Your task to perform on an android device: Do I have any events tomorrow? Image 0: 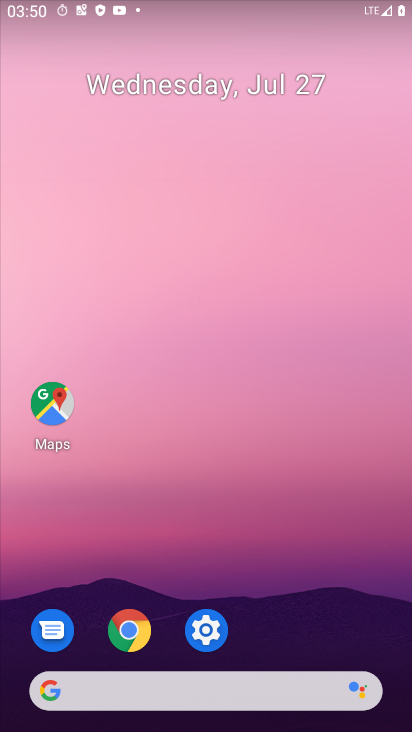
Step 0: press back button
Your task to perform on an android device: Do I have any events tomorrow? Image 1: 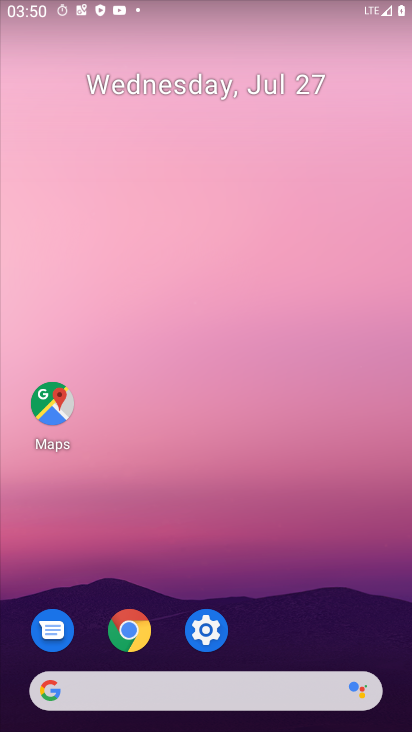
Step 1: click (179, 41)
Your task to perform on an android device: Do I have any events tomorrow? Image 2: 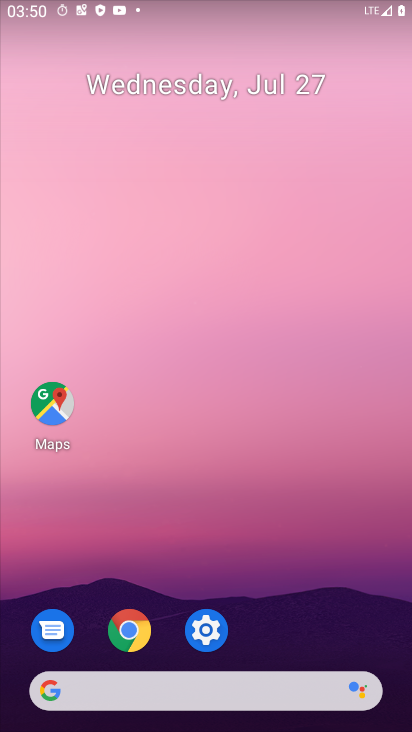
Step 2: click (218, 112)
Your task to perform on an android device: Do I have any events tomorrow? Image 3: 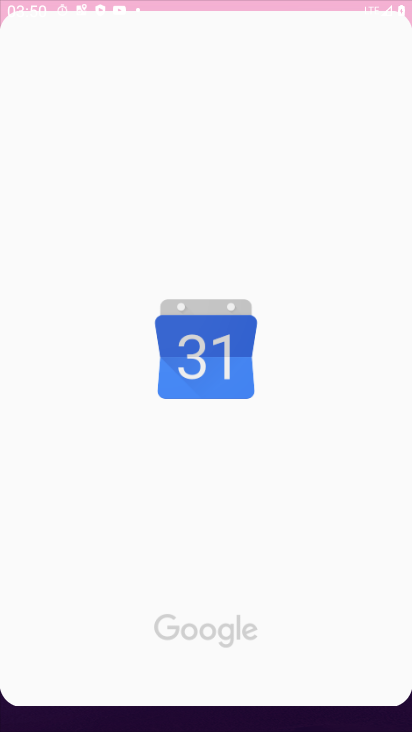
Step 3: drag from (264, 279) to (226, 40)
Your task to perform on an android device: Do I have any events tomorrow? Image 4: 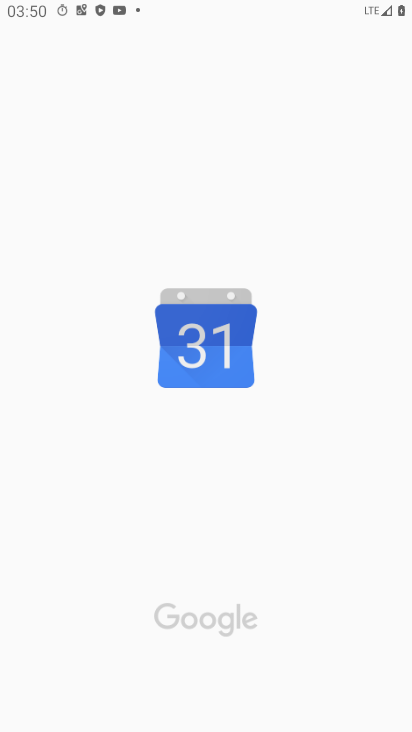
Step 4: drag from (277, 510) to (231, 141)
Your task to perform on an android device: Do I have any events tomorrow? Image 5: 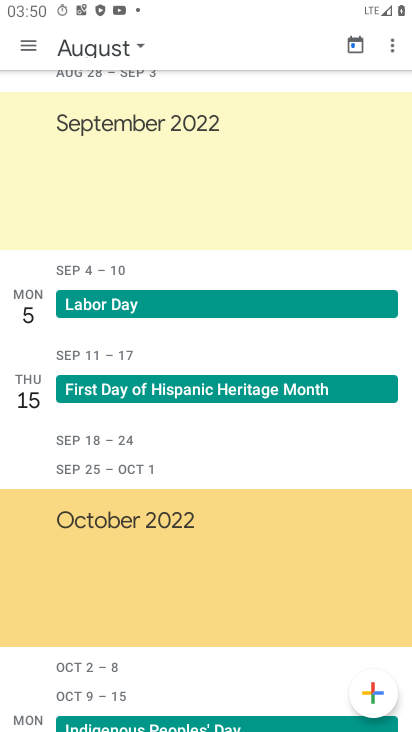
Step 5: click (139, 39)
Your task to perform on an android device: Do I have any events tomorrow? Image 6: 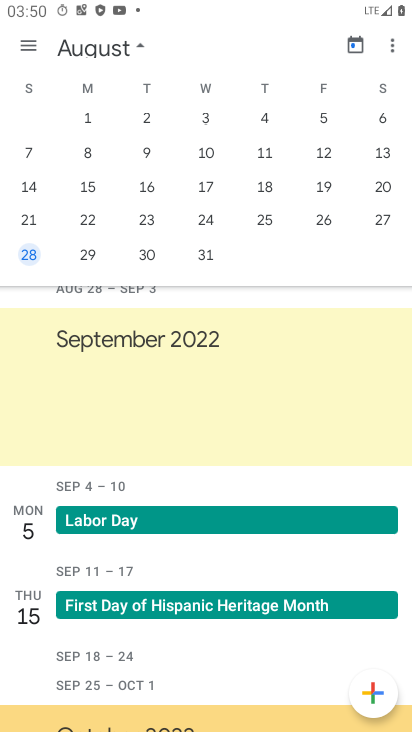
Step 6: drag from (128, 196) to (331, 204)
Your task to perform on an android device: Do I have any events tomorrow? Image 7: 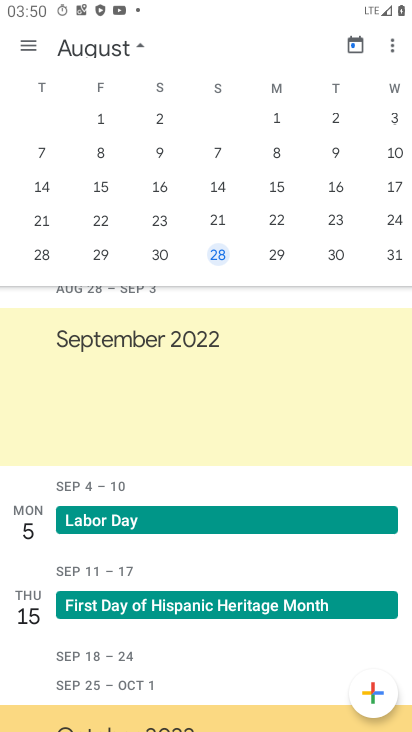
Step 7: drag from (223, 206) to (410, 216)
Your task to perform on an android device: Do I have any events tomorrow? Image 8: 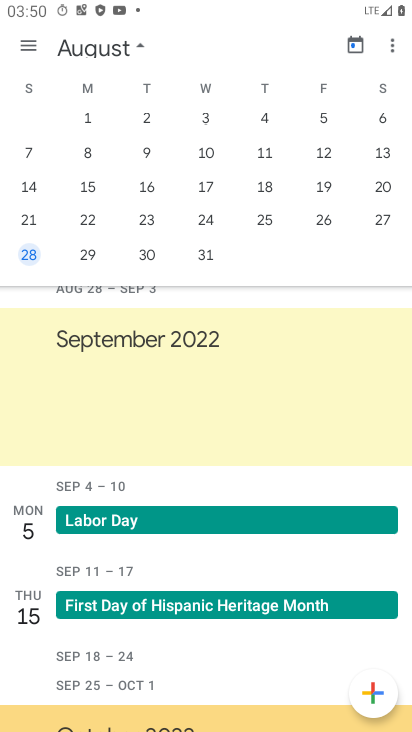
Step 8: drag from (74, 201) to (263, 198)
Your task to perform on an android device: Do I have any events tomorrow? Image 9: 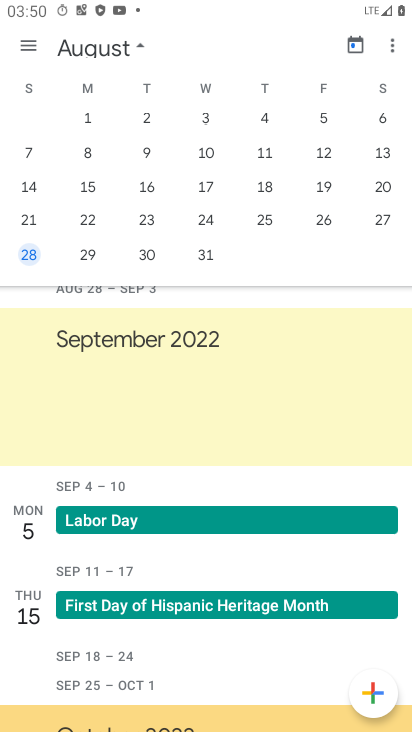
Step 9: drag from (41, 162) to (406, 162)
Your task to perform on an android device: Do I have any events tomorrow? Image 10: 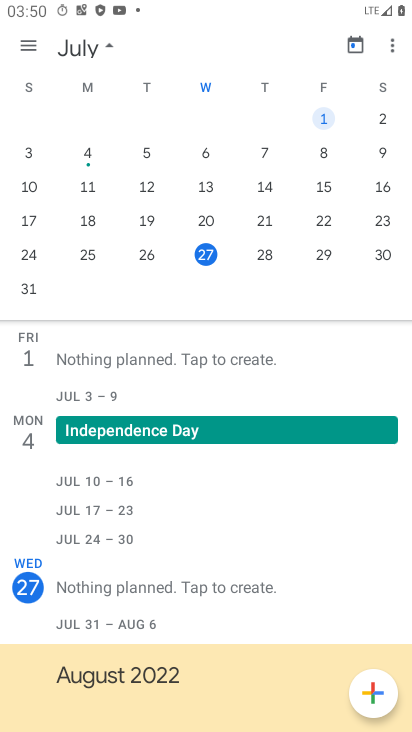
Step 10: click (275, 248)
Your task to perform on an android device: Do I have any events tomorrow? Image 11: 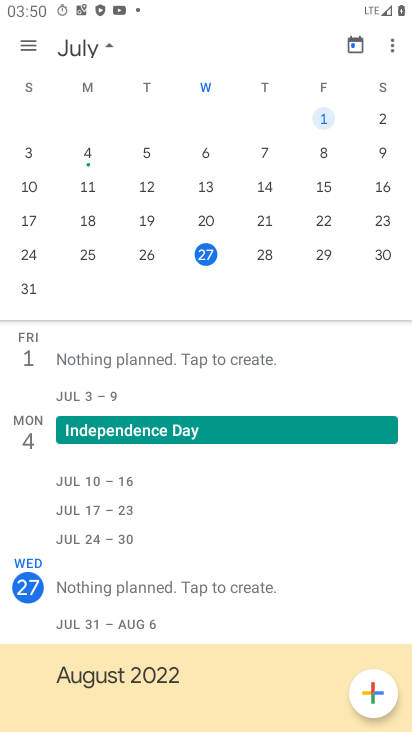
Step 11: click (260, 258)
Your task to perform on an android device: Do I have any events tomorrow? Image 12: 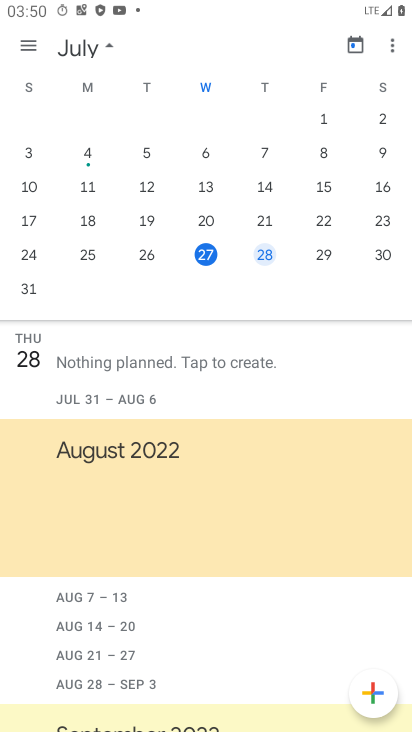
Step 12: click (260, 258)
Your task to perform on an android device: Do I have any events tomorrow? Image 13: 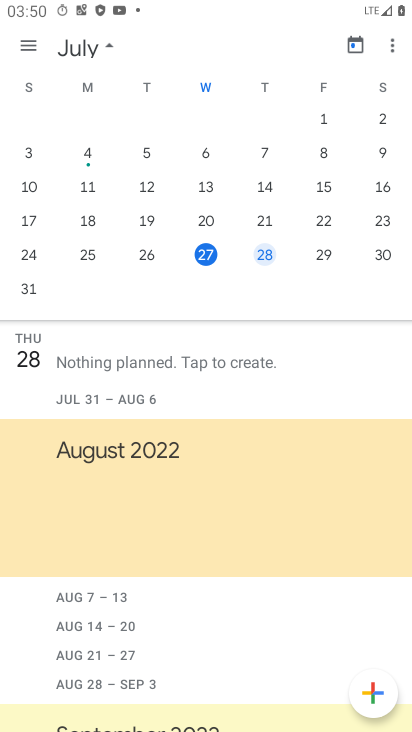
Step 13: task complete